Your task to perform on an android device: Search for Italian restaurants on Maps Image 0: 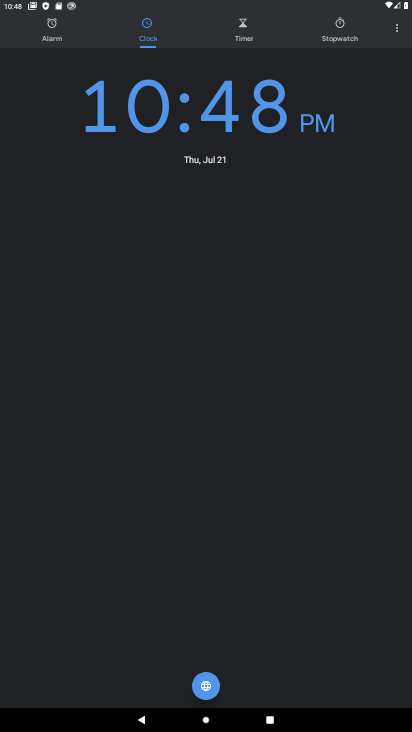
Step 0: press home button
Your task to perform on an android device: Search for Italian restaurants on Maps Image 1: 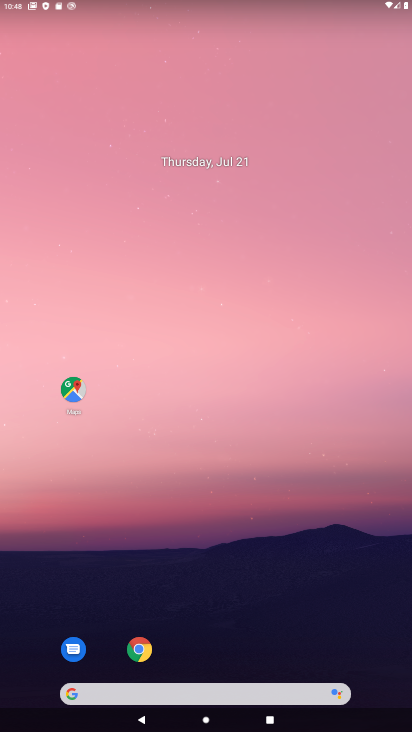
Step 1: click (74, 394)
Your task to perform on an android device: Search for Italian restaurants on Maps Image 2: 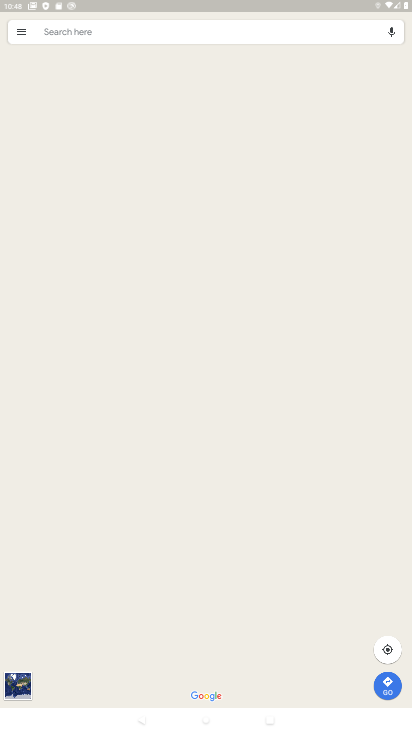
Step 2: click (214, 27)
Your task to perform on an android device: Search for Italian restaurants on Maps Image 3: 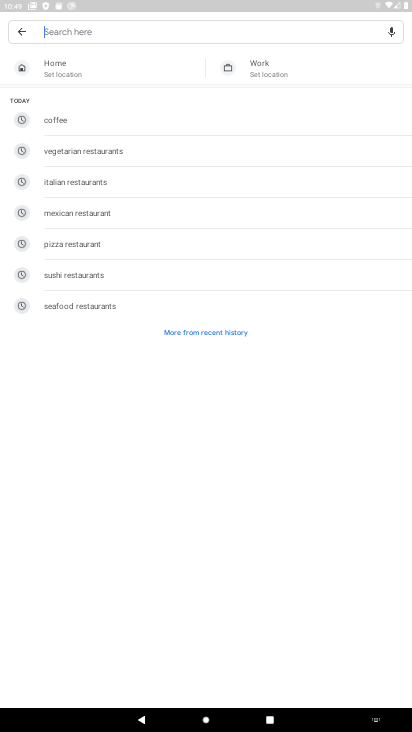
Step 3: type "italian restaurants"
Your task to perform on an android device: Search for Italian restaurants on Maps Image 4: 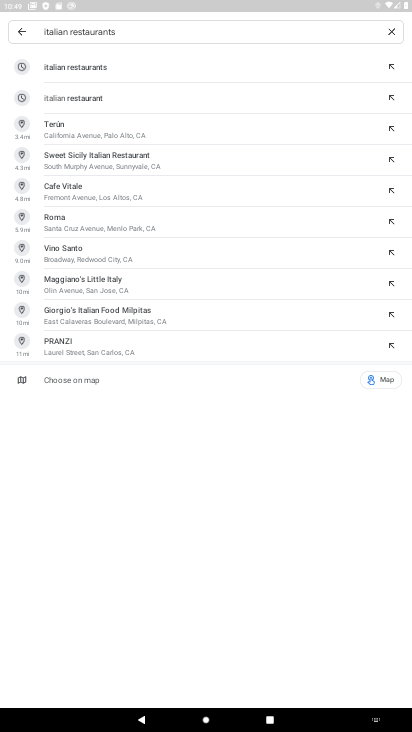
Step 4: click (93, 70)
Your task to perform on an android device: Search for Italian restaurants on Maps Image 5: 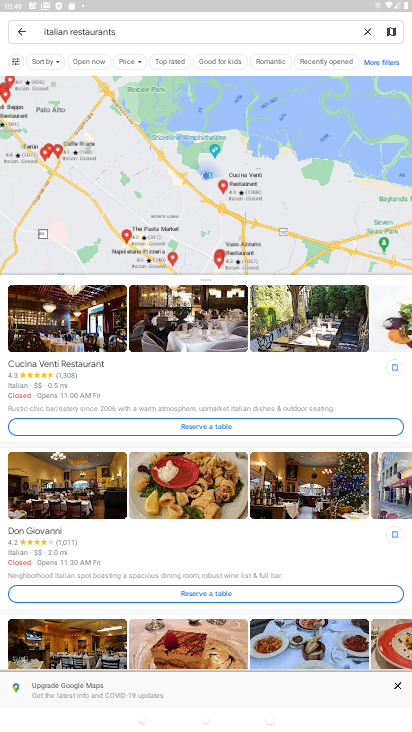
Step 5: task complete